Your task to perform on an android device: Open Chrome and go to settings Image 0: 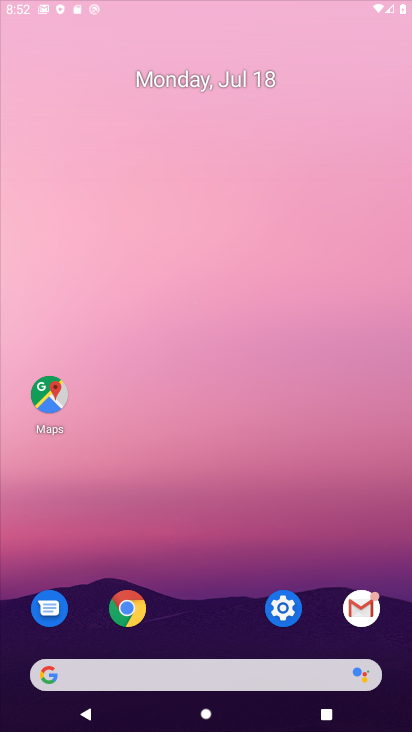
Step 0: press home button
Your task to perform on an android device: Open Chrome and go to settings Image 1: 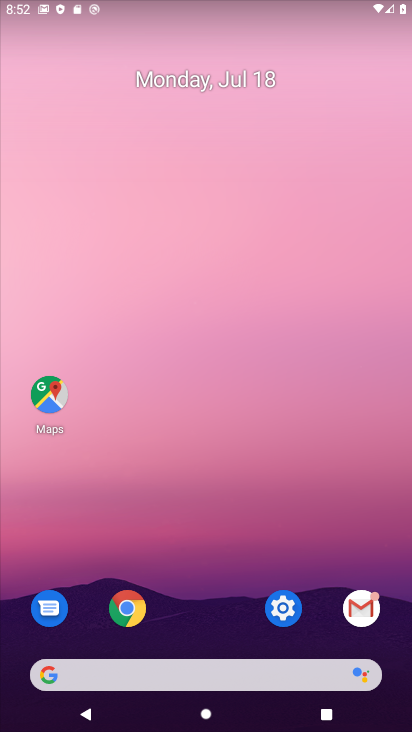
Step 1: click (121, 582)
Your task to perform on an android device: Open Chrome and go to settings Image 2: 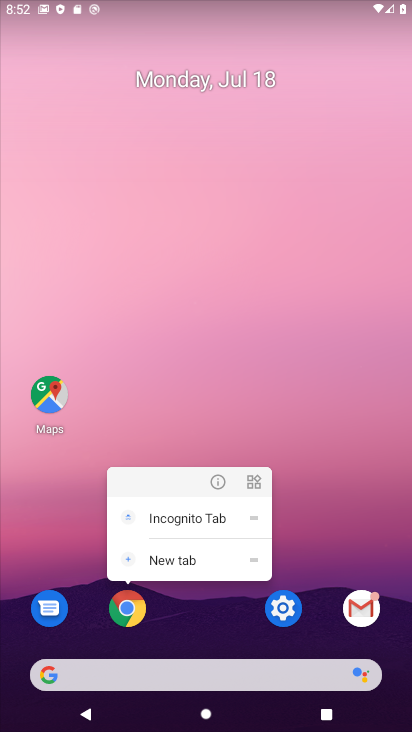
Step 2: click (128, 620)
Your task to perform on an android device: Open Chrome and go to settings Image 3: 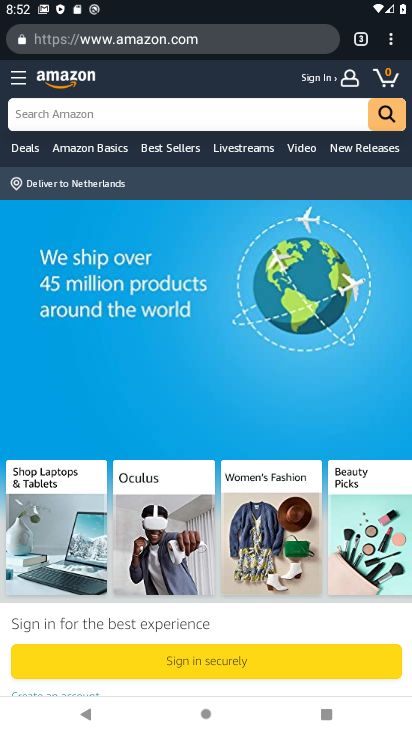
Step 3: click (396, 36)
Your task to perform on an android device: Open Chrome and go to settings Image 4: 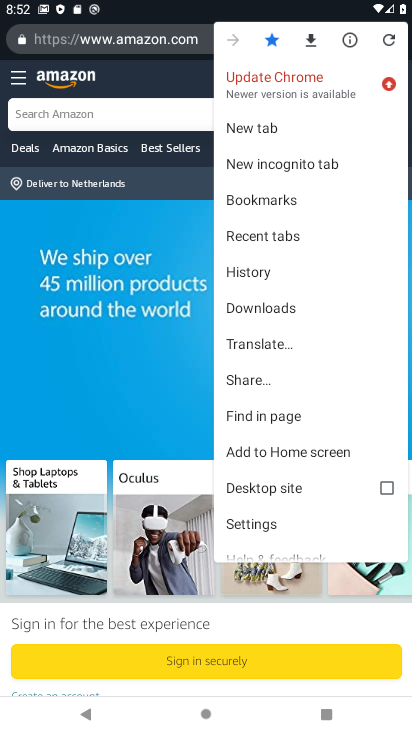
Step 4: click (249, 512)
Your task to perform on an android device: Open Chrome and go to settings Image 5: 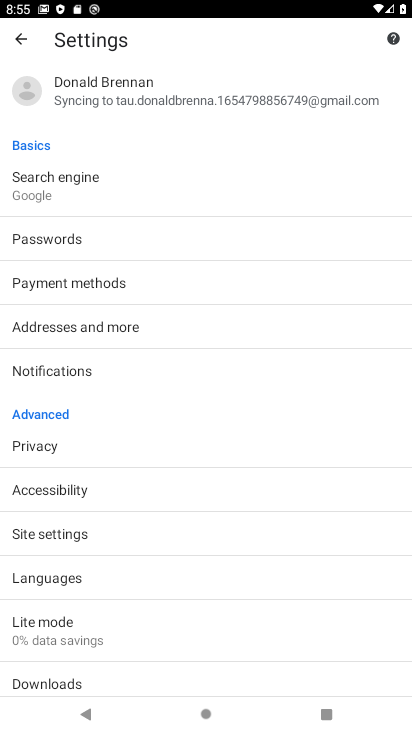
Step 5: task complete